Your task to perform on an android device: What's on my calendar tomorrow? Image 0: 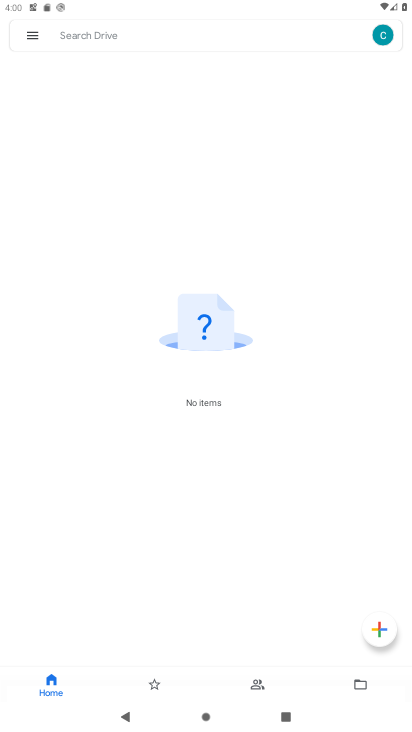
Step 0: press home button
Your task to perform on an android device: What's on my calendar tomorrow? Image 1: 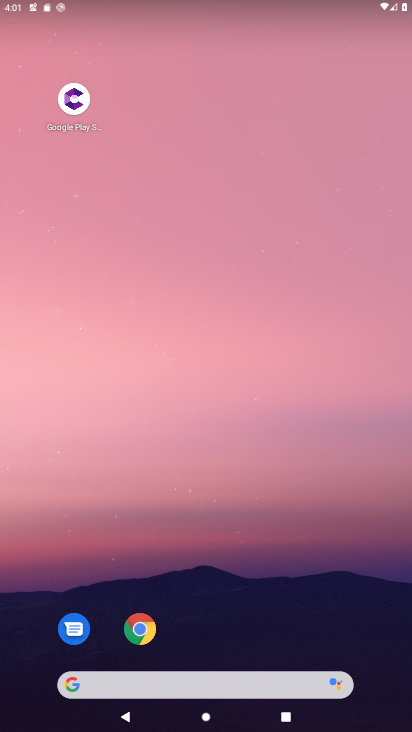
Step 1: drag from (381, 690) to (120, 28)
Your task to perform on an android device: What's on my calendar tomorrow? Image 2: 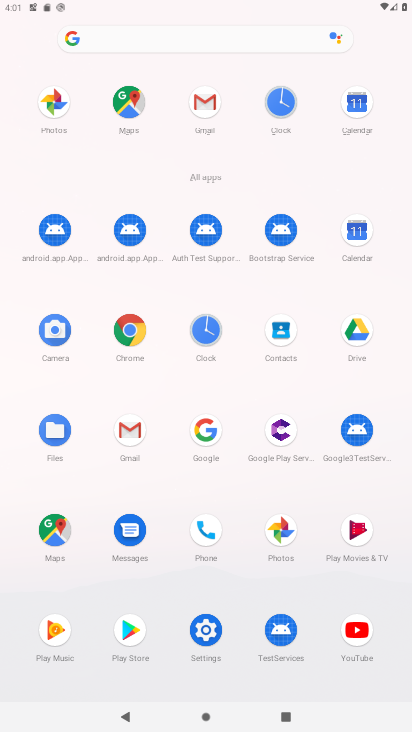
Step 2: click (362, 235)
Your task to perform on an android device: What's on my calendar tomorrow? Image 3: 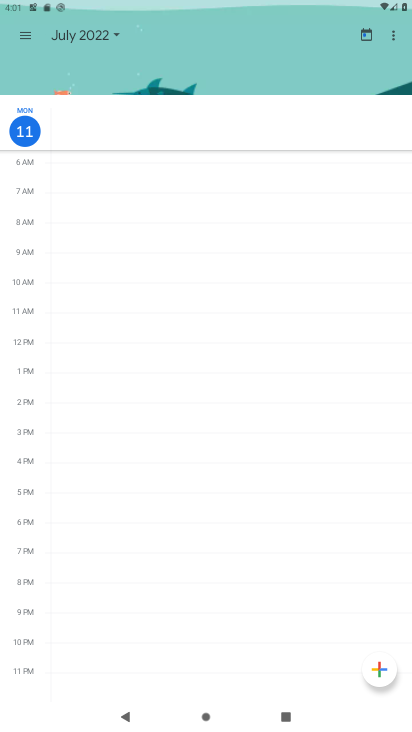
Step 3: click (24, 40)
Your task to perform on an android device: What's on my calendar tomorrow? Image 4: 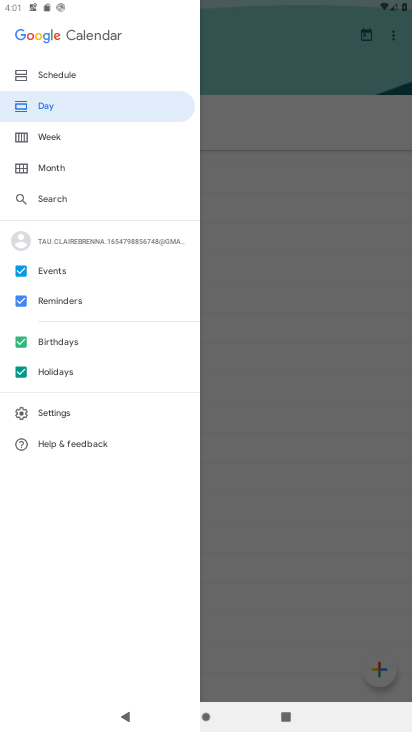
Step 4: click (215, 87)
Your task to perform on an android device: What's on my calendar tomorrow? Image 5: 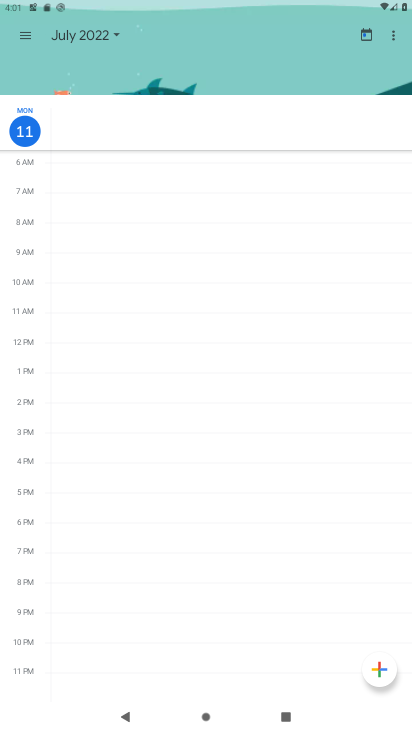
Step 5: click (87, 27)
Your task to perform on an android device: What's on my calendar tomorrow? Image 6: 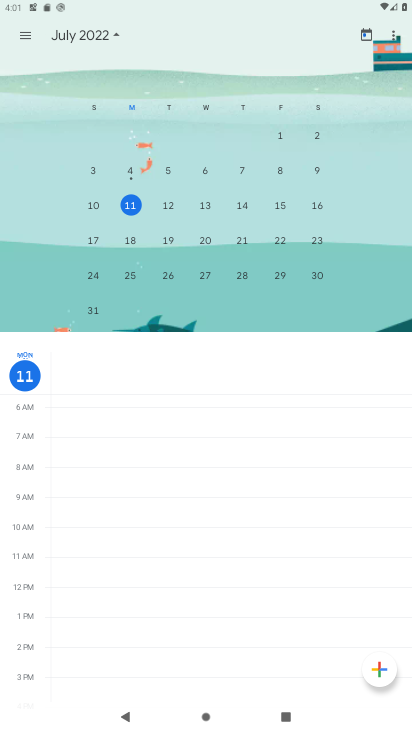
Step 6: click (170, 204)
Your task to perform on an android device: What's on my calendar tomorrow? Image 7: 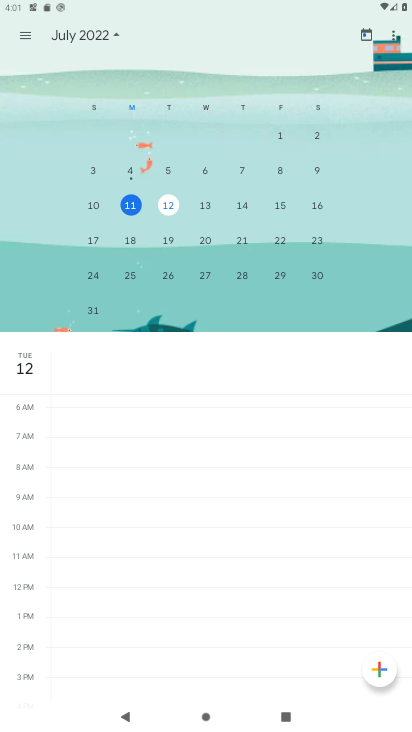
Step 7: task complete